Your task to perform on an android device: change notifications settings Image 0: 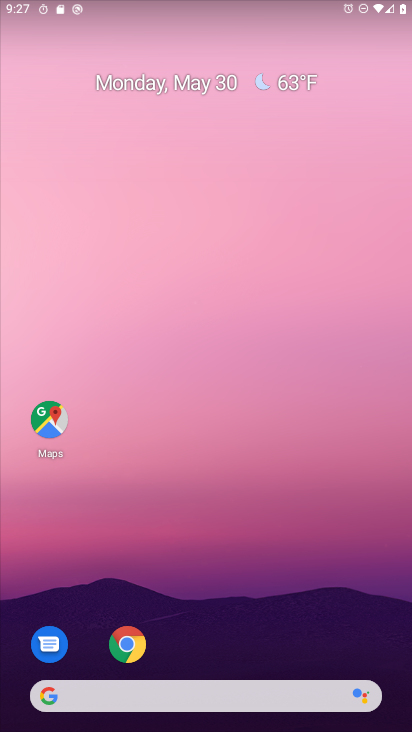
Step 0: drag from (199, 639) to (268, 10)
Your task to perform on an android device: change notifications settings Image 1: 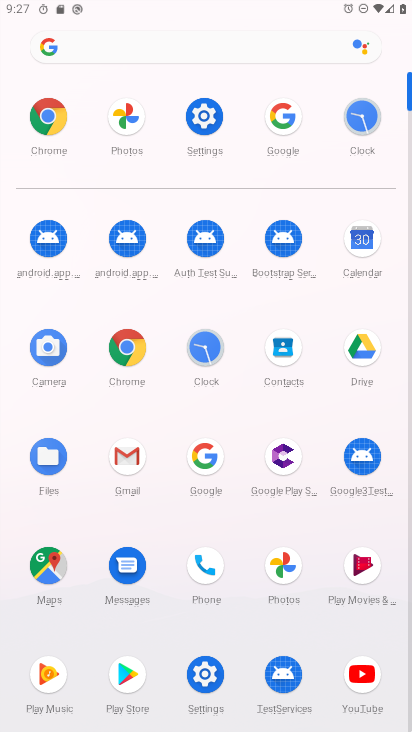
Step 1: click (199, 118)
Your task to perform on an android device: change notifications settings Image 2: 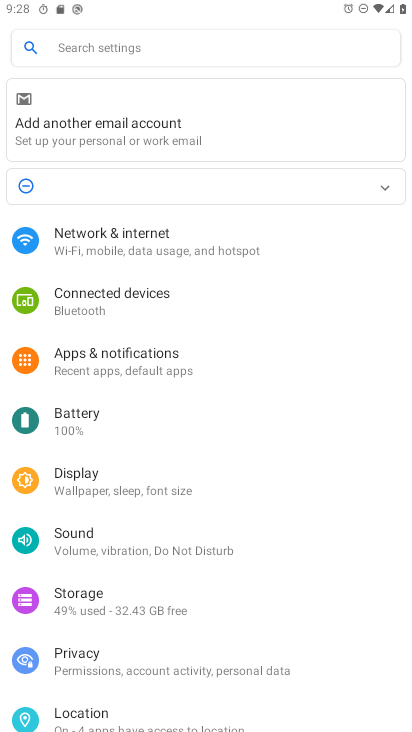
Step 2: click (115, 363)
Your task to perform on an android device: change notifications settings Image 3: 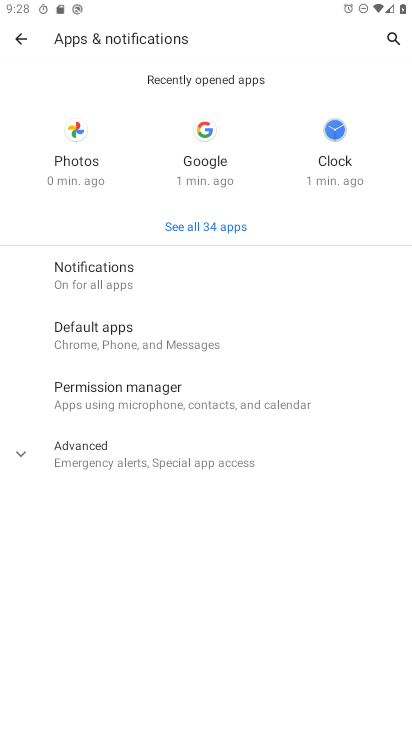
Step 3: click (111, 275)
Your task to perform on an android device: change notifications settings Image 4: 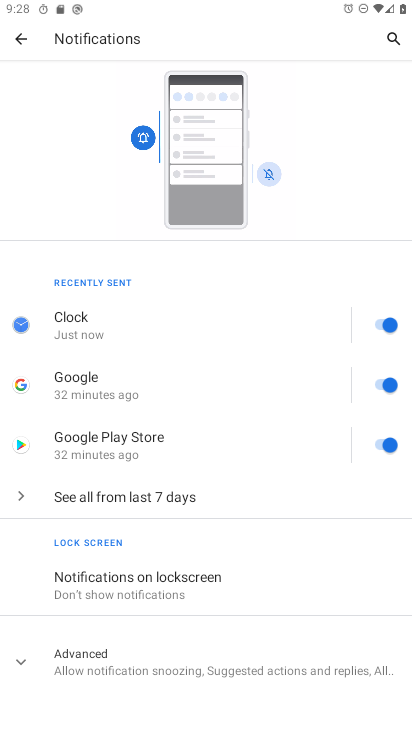
Step 4: task complete